Your task to perform on an android device: turn notification dots on Image 0: 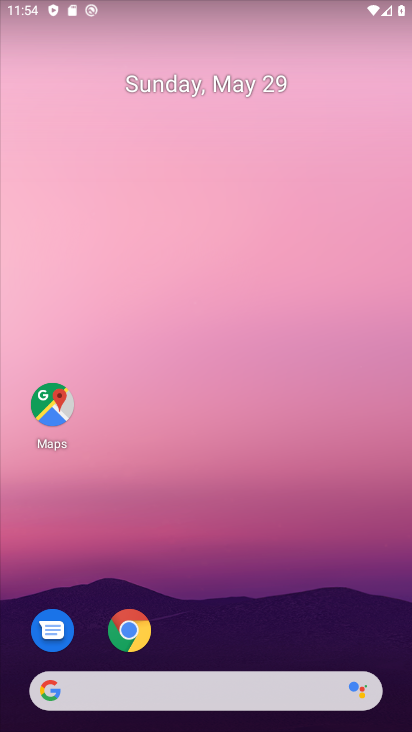
Step 0: drag from (235, 626) to (167, 183)
Your task to perform on an android device: turn notification dots on Image 1: 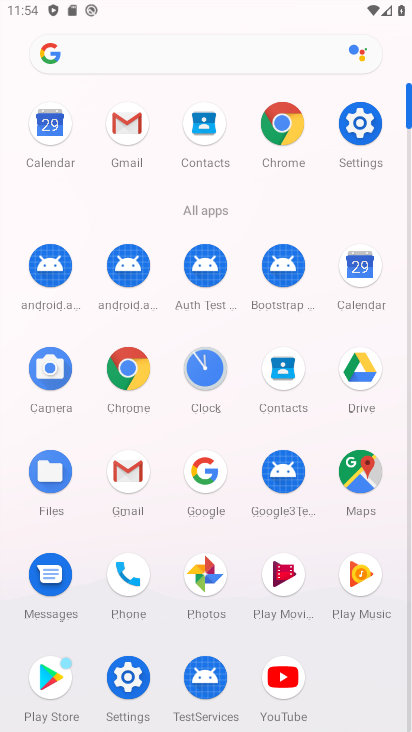
Step 1: click (352, 119)
Your task to perform on an android device: turn notification dots on Image 2: 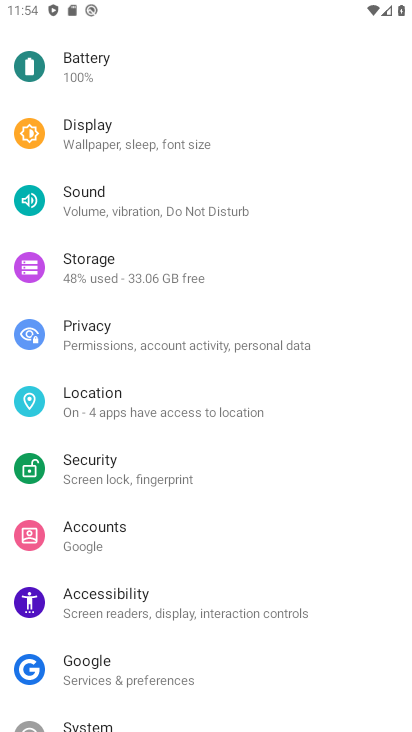
Step 2: drag from (81, 117) to (145, 433)
Your task to perform on an android device: turn notification dots on Image 3: 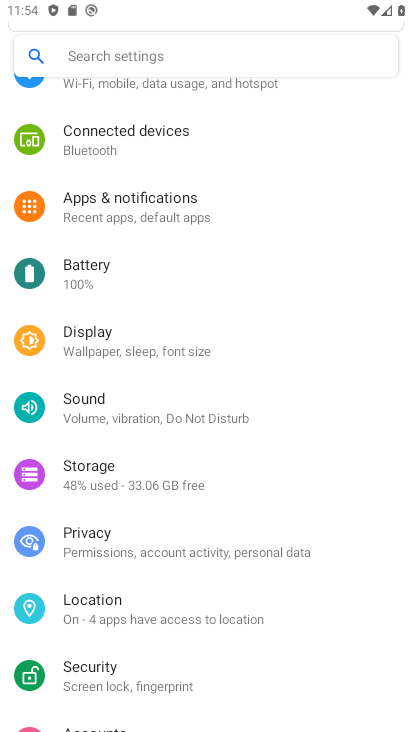
Step 3: click (110, 199)
Your task to perform on an android device: turn notification dots on Image 4: 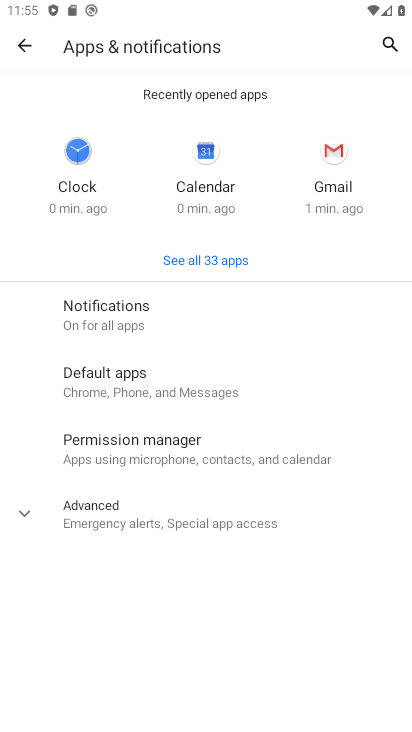
Step 4: click (90, 306)
Your task to perform on an android device: turn notification dots on Image 5: 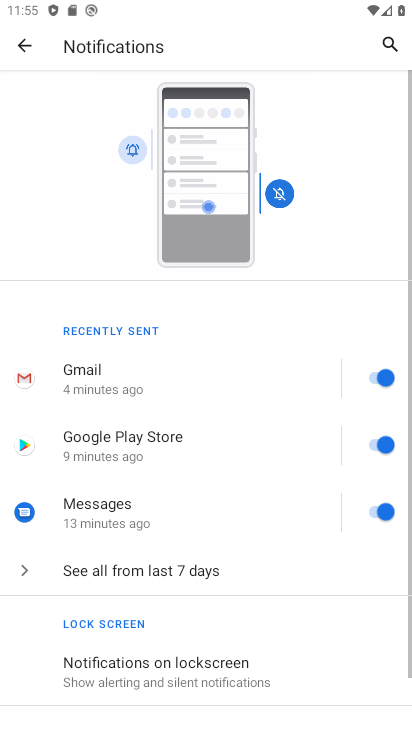
Step 5: drag from (185, 638) to (223, 276)
Your task to perform on an android device: turn notification dots on Image 6: 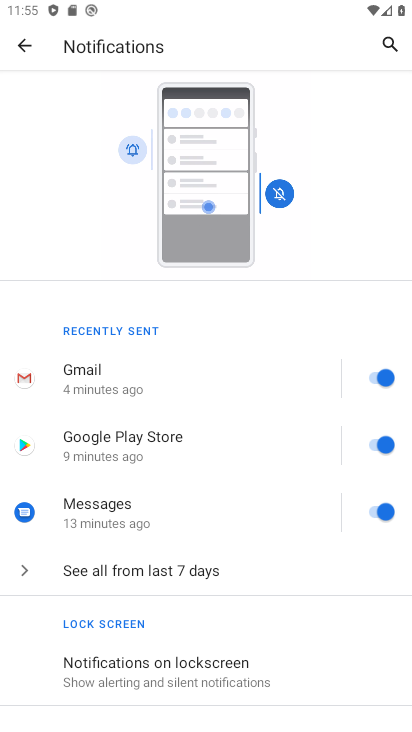
Step 6: drag from (247, 495) to (217, 217)
Your task to perform on an android device: turn notification dots on Image 7: 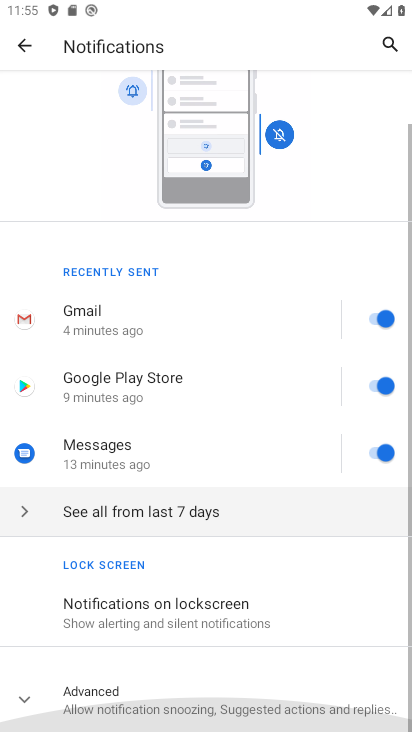
Step 7: click (221, 242)
Your task to perform on an android device: turn notification dots on Image 8: 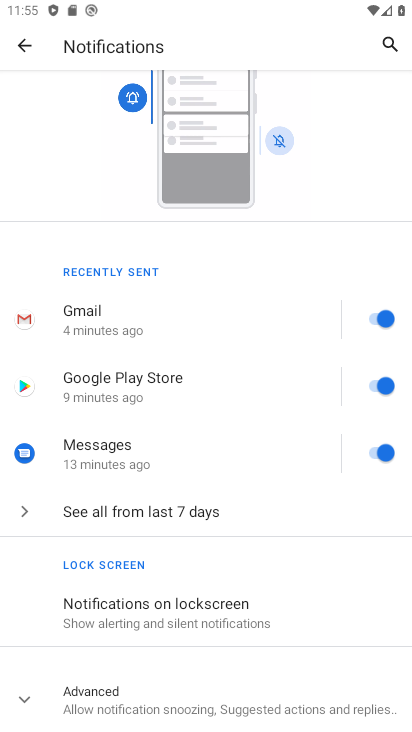
Step 8: click (102, 694)
Your task to perform on an android device: turn notification dots on Image 9: 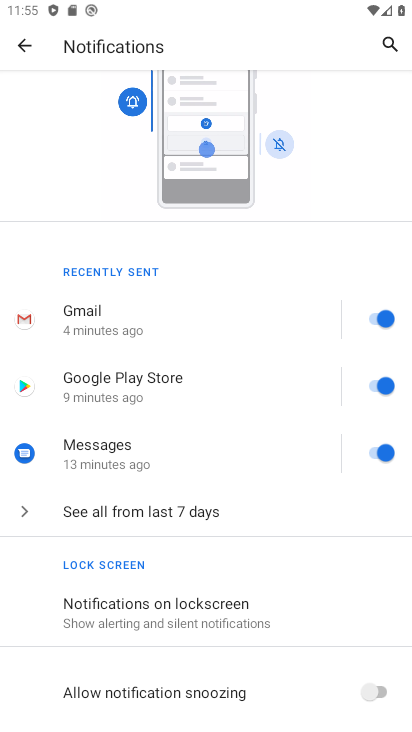
Step 9: task complete